Your task to perform on an android device: visit the assistant section in the google photos Image 0: 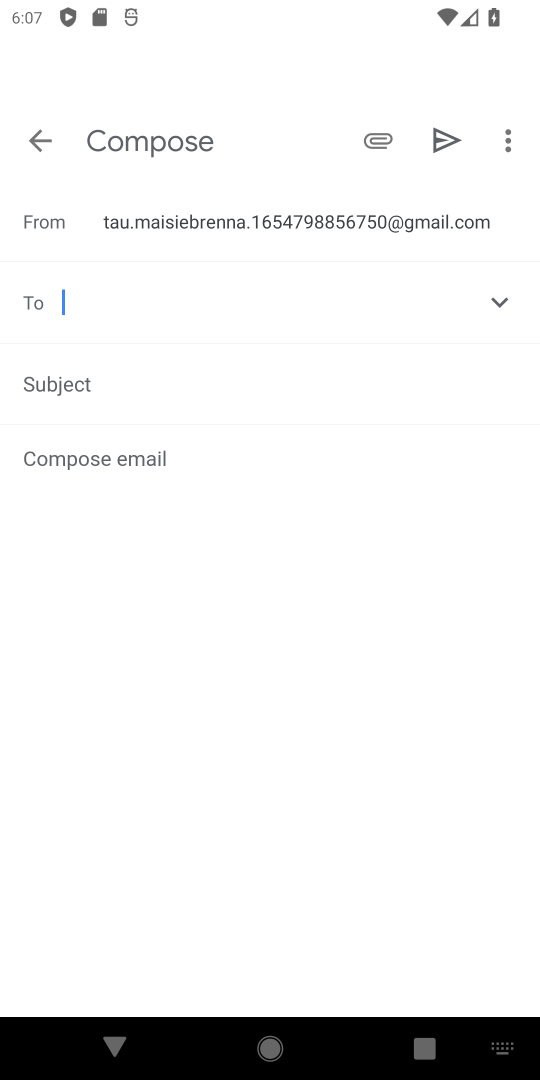
Step 0: press home button
Your task to perform on an android device: visit the assistant section in the google photos Image 1: 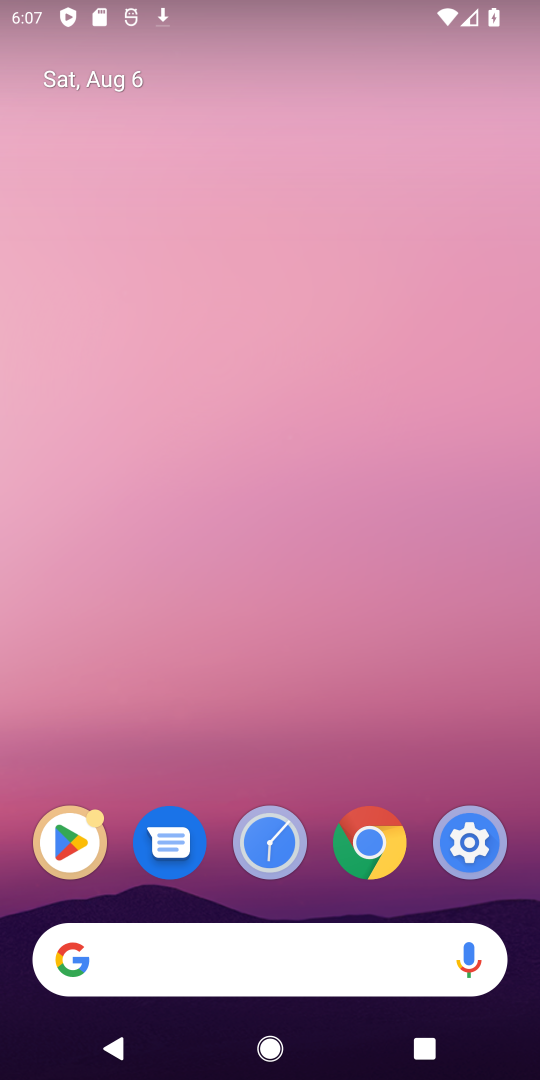
Step 1: drag from (240, 972) to (363, 51)
Your task to perform on an android device: visit the assistant section in the google photos Image 2: 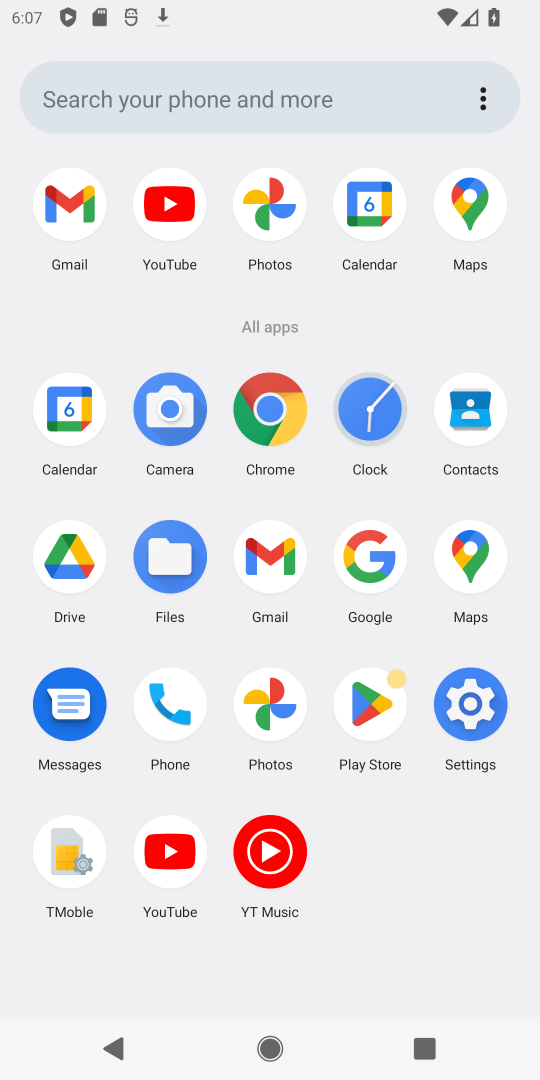
Step 2: click (271, 206)
Your task to perform on an android device: visit the assistant section in the google photos Image 3: 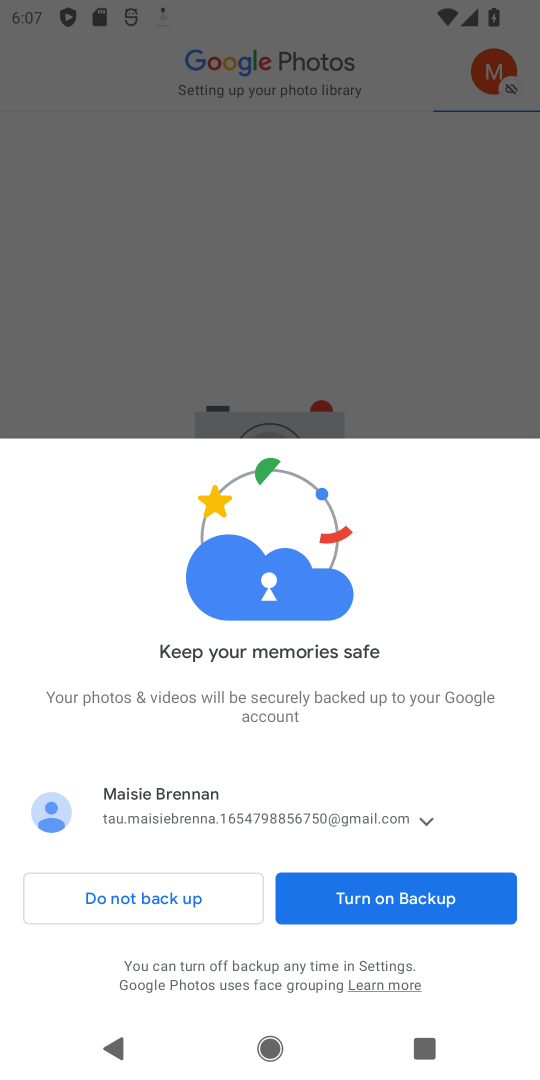
Step 3: click (378, 892)
Your task to perform on an android device: visit the assistant section in the google photos Image 4: 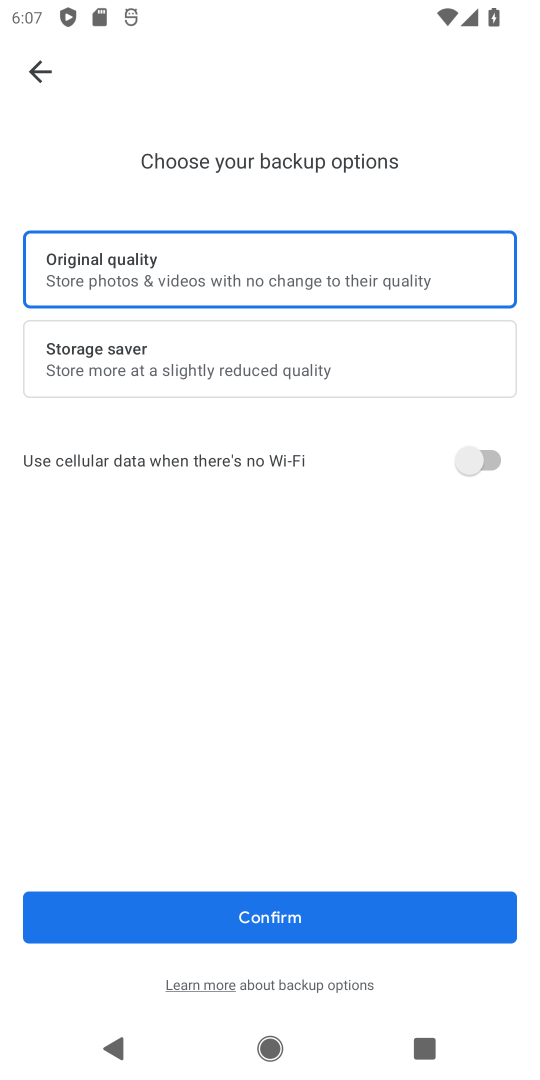
Step 4: click (378, 892)
Your task to perform on an android device: visit the assistant section in the google photos Image 5: 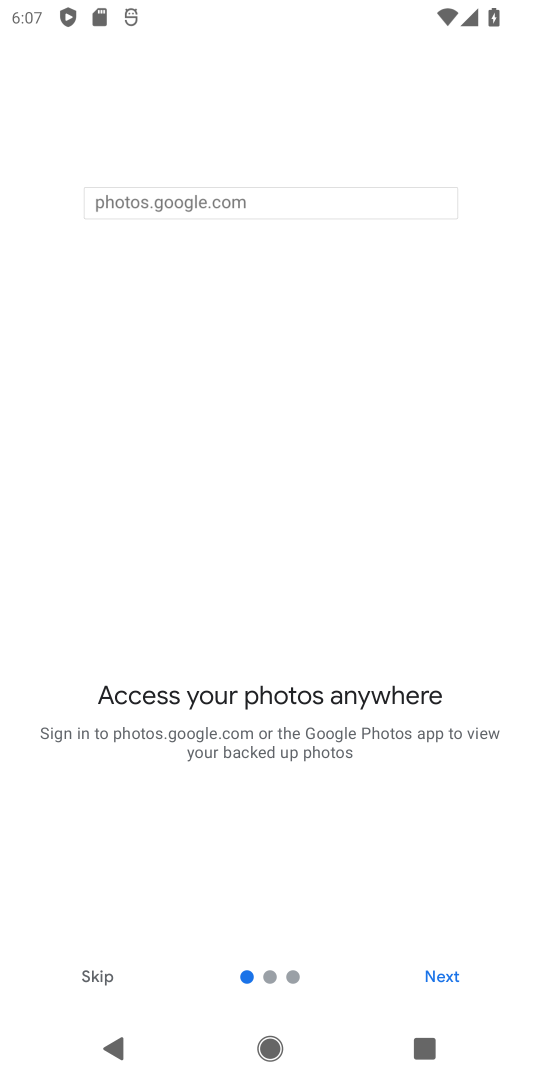
Step 5: click (98, 975)
Your task to perform on an android device: visit the assistant section in the google photos Image 6: 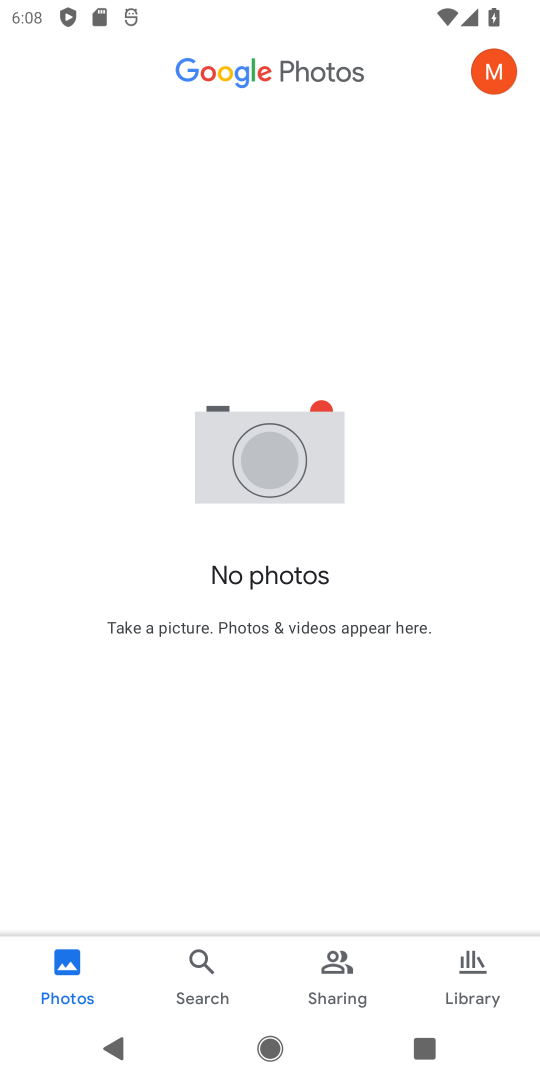
Step 6: click (336, 979)
Your task to perform on an android device: visit the assistant section in the google photos Image 7: 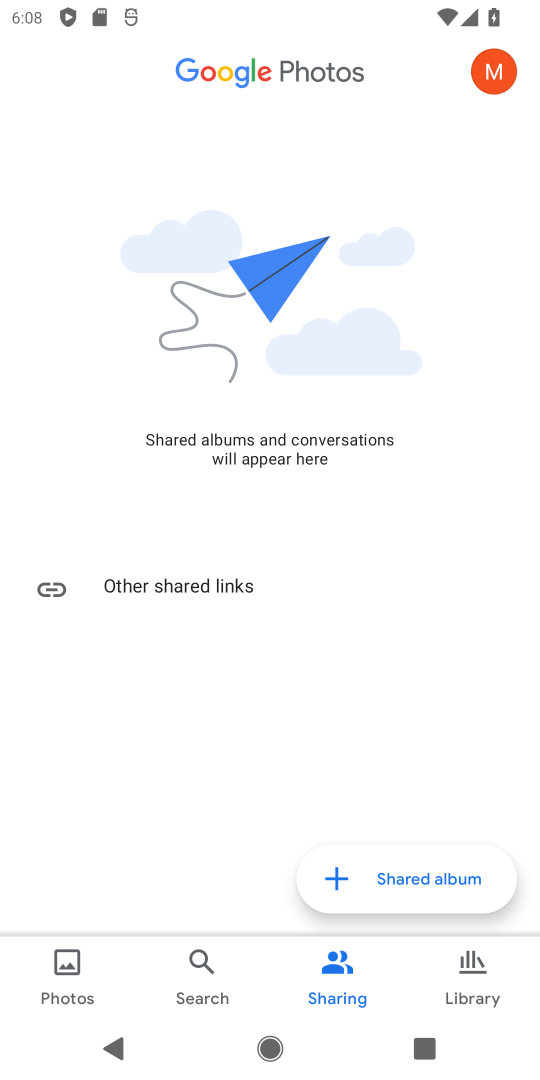
Step 7: click (474, 974)
Your task to perform on an android device: visit the assistant section in the google photos Image 8: 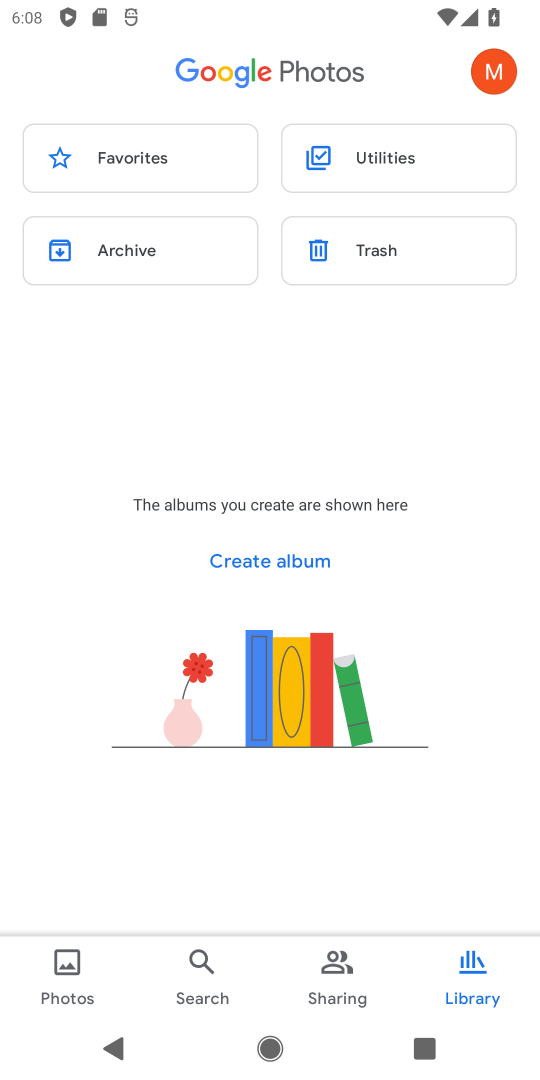
Step 8: task complete